Your task to perform on an android device: Open Chrome and go to settings Image 0: 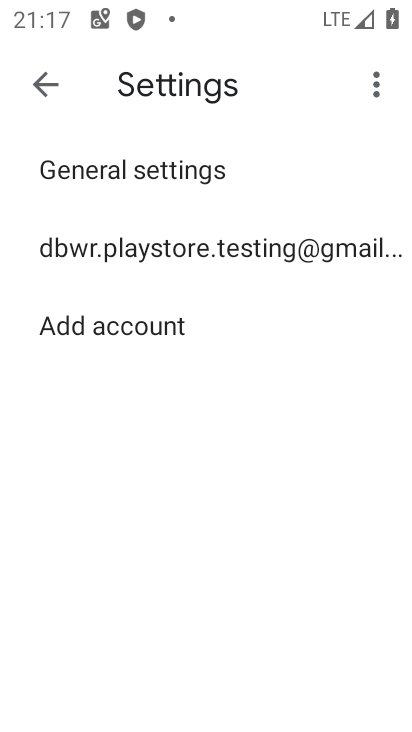
Step 0: press home button
Your task to perform on an android device: Open Chrome and go to settings Image 1: 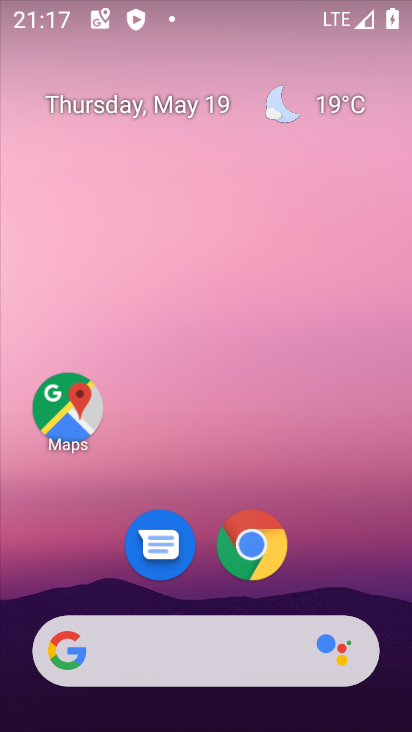
Step 1: click (266, 549)
Your task to perform on an android device: Open Chrome and go to settings Image 2: 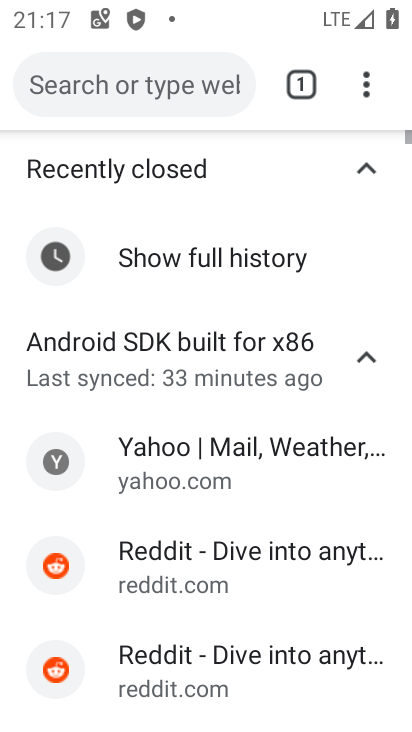
Step 2: click (372, 96)
Your task to perform on an android device: Open Chrome and go to settings Image 3: 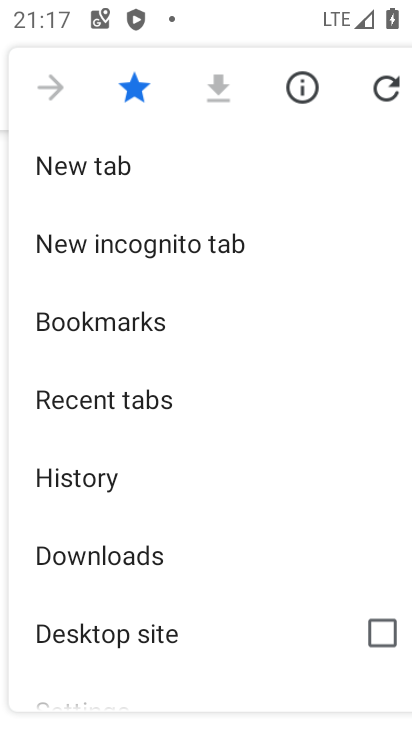
Step 3: drag from (189, 660) to (183, 494)
Your task to perform on an android device: Open Chrome and go to settings Image 4: 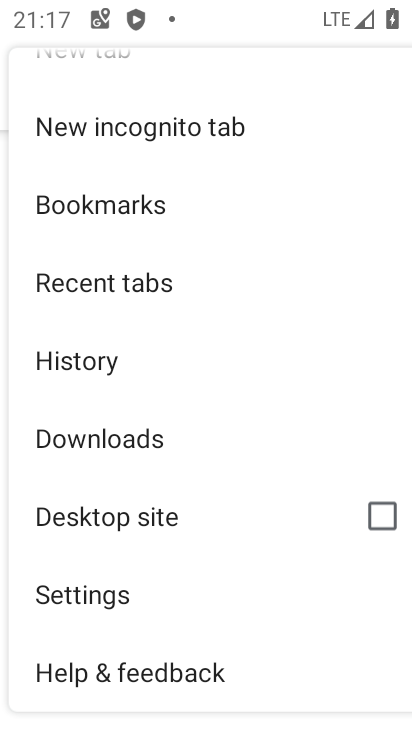
Step 4: click (158, 600)
Your task to perform on an android device: Open Chrome and go to settings Image 5: 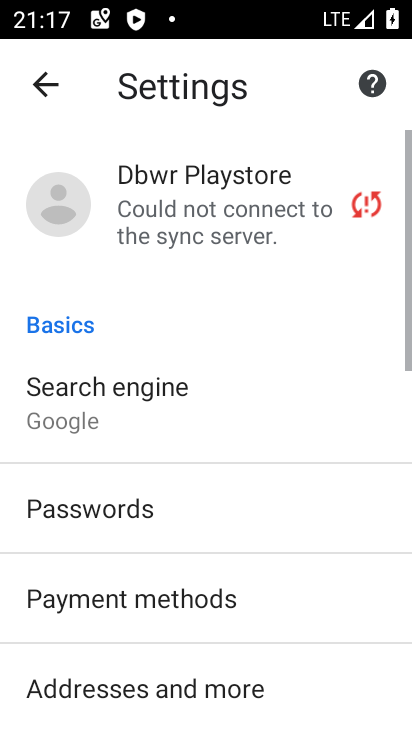
Step 5: task complete